Your task to perform on an android device: Show me recent news Image 0: 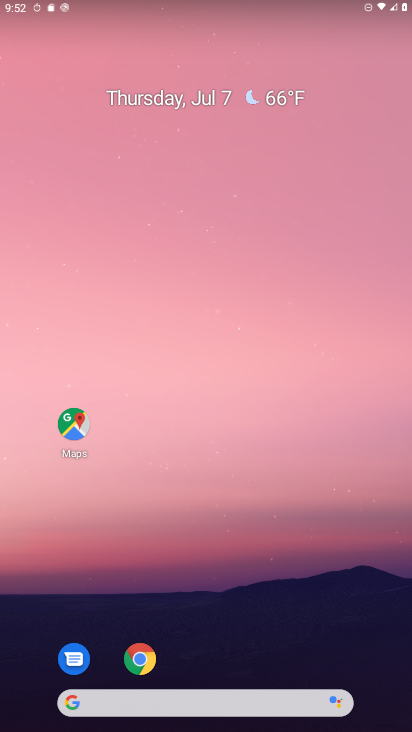
Step 0: drag from (372, 701) to (255, 77)
Your task to perform on an android device: Show me recent news Image 1: 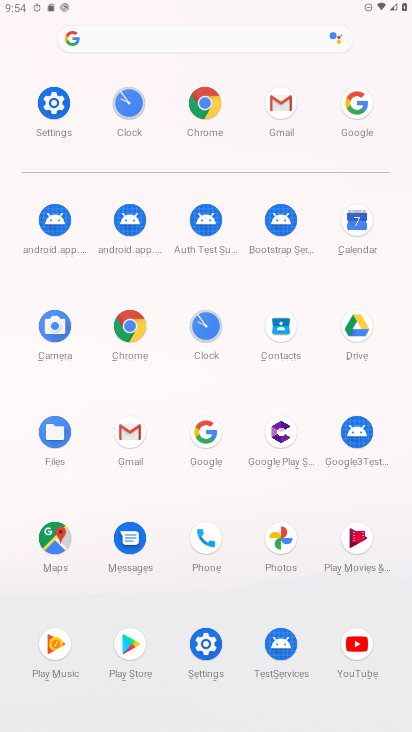
Step 1: click (205, 436)
Your task to perform on an android device: Show me recent news Image 2: 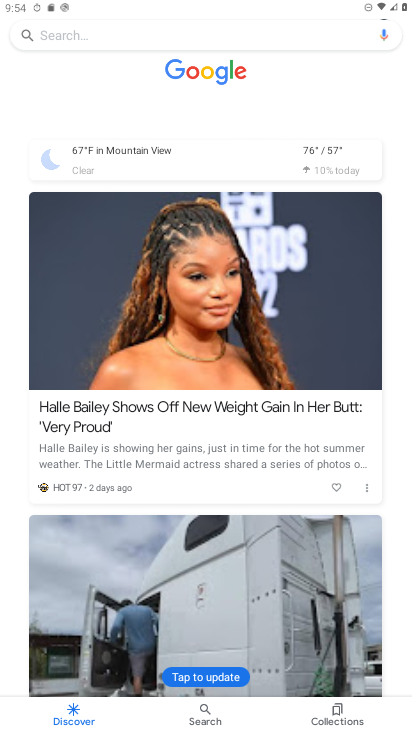
Step 2: click (130, 34)
Your task to perform on an android device: Show me recent news Image 3: 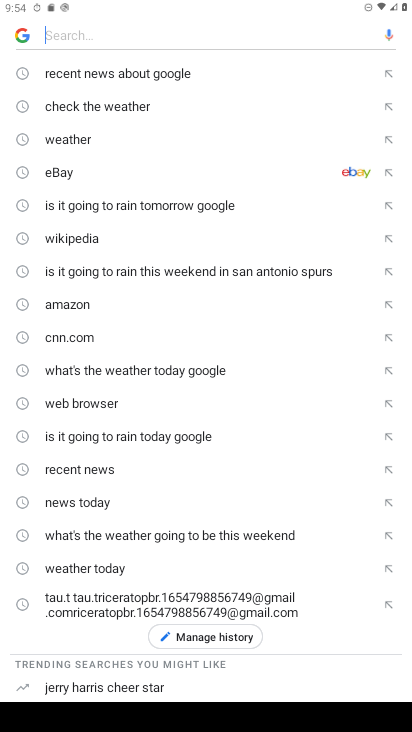
Step 3: type "Show me recent news"
Your task to perform on an android device: Show me recent news Image 4: 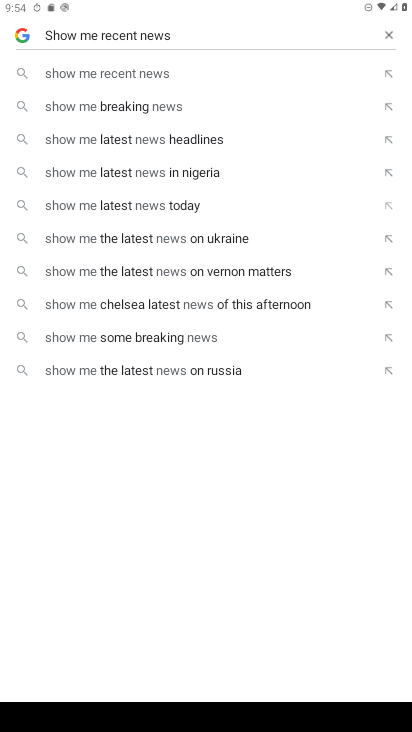
Step 4: click (138, 78)
Your task to perform on an android device: Show me recent news Image 5: 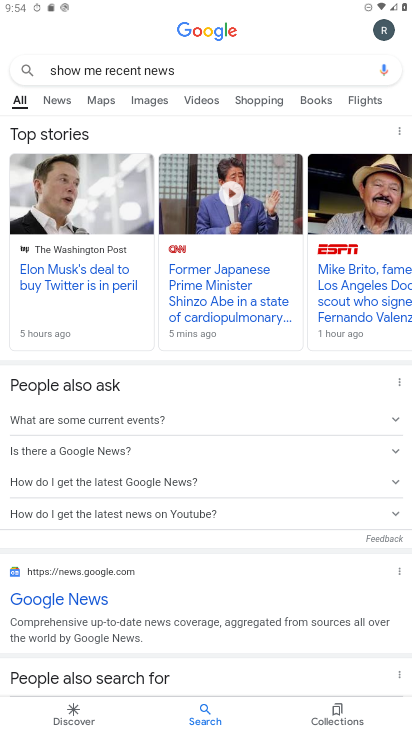
Step 5: task complete